Your task to perform on an android device: Go to privacy settings Image 0: 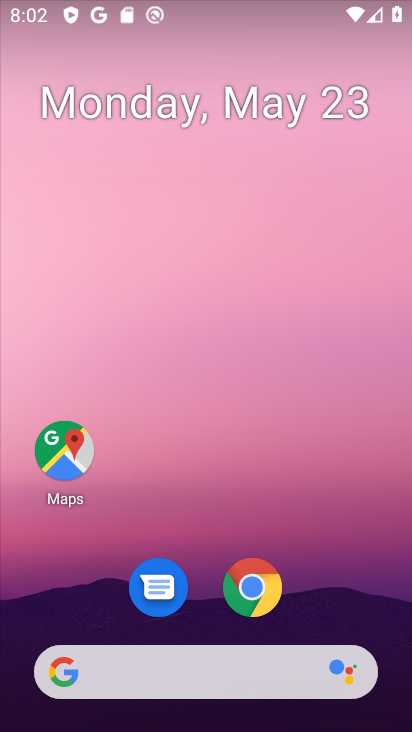
Step 0: drag from (241, 596) to (350, 93)
Your task to perform on an android device: Go to privacy settings Image 1: 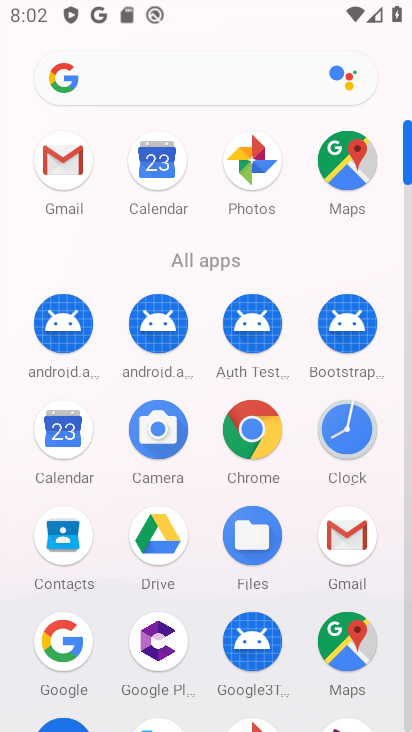
Step 1: drag from (209, 645) to (307, 177)
Your task to perform on an android device: Go to privacy settings Image 2: 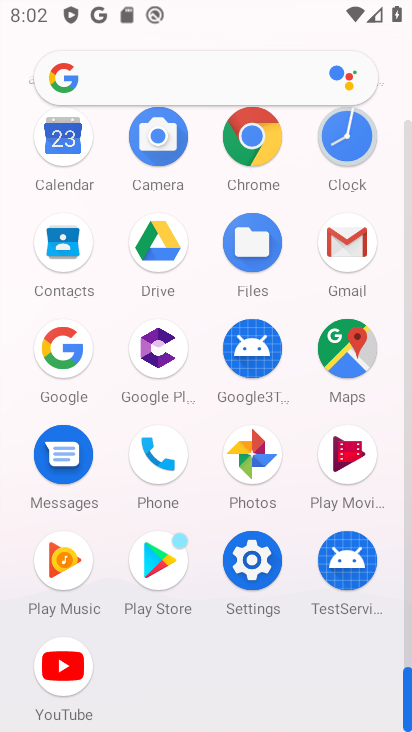
Step 2: click (248, 552)
Your task to perform on an android device: Go to privacy settings Image 3: 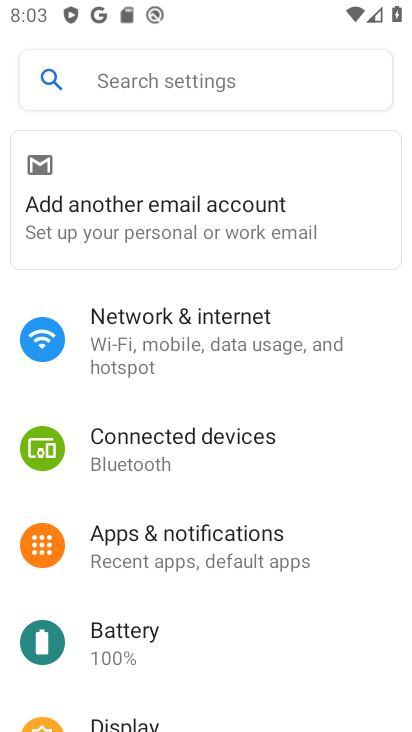
Step 3: drag from (190, 631) to (212, 258)
Your task to perform on an android device: Go to privacy settings Image 4: 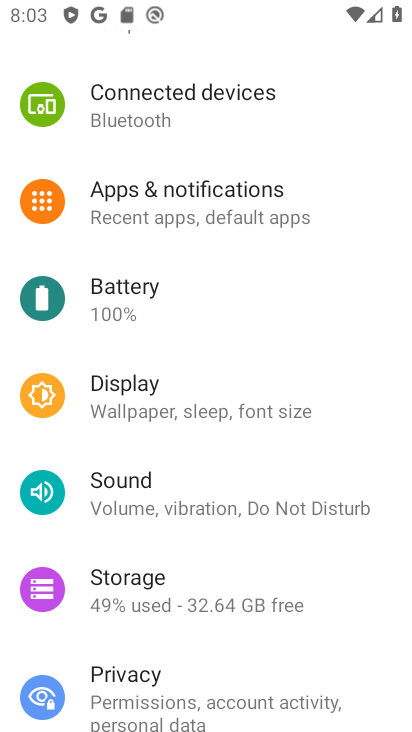
Step 4: click (189, 682)
Your task to perform on an android device: Go to privacy settings Image 5: 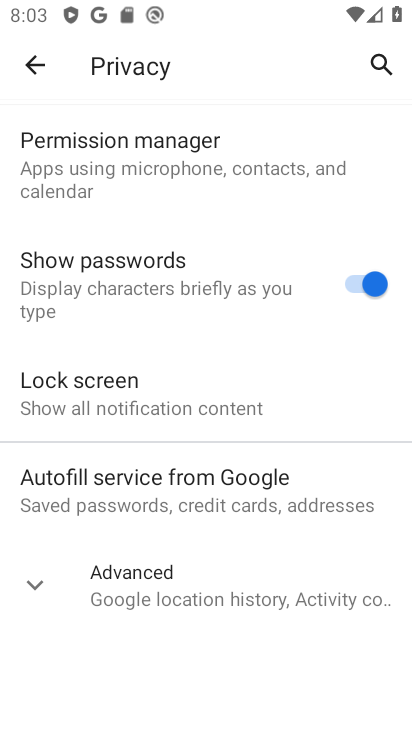
Step 5: task complete